Your task to perform on an android device: turn off smart reply in the gmail app Image 0: 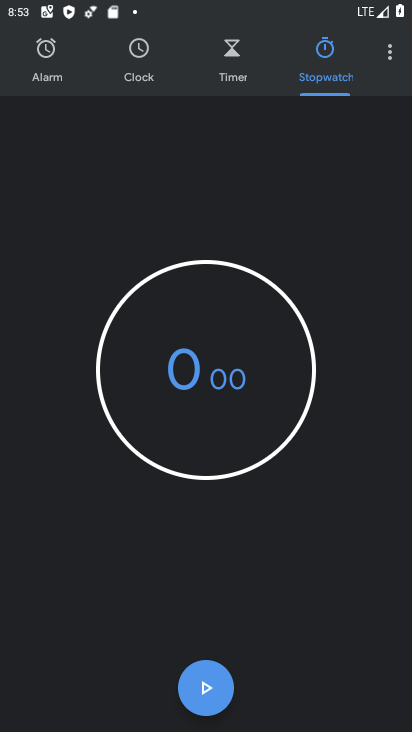
Step 0: press home button
Your task to perform on an android device: turn off smart reply in the gmail app Image 1: 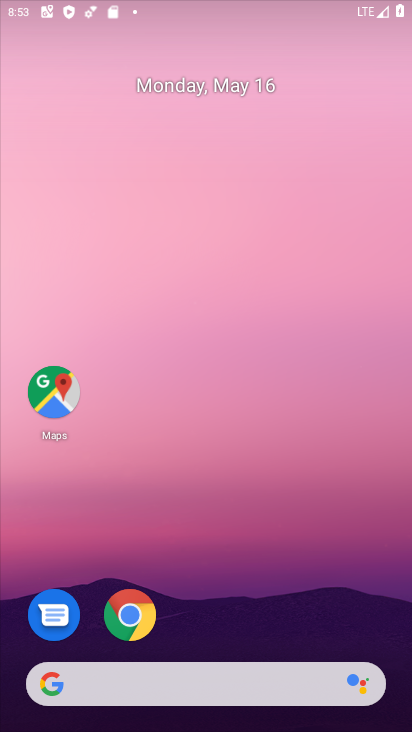
Step 1: drag from (184, 693) to (181, 270)
Your task to perform on an android device: turn off smart reply in the gmail app Image 2: 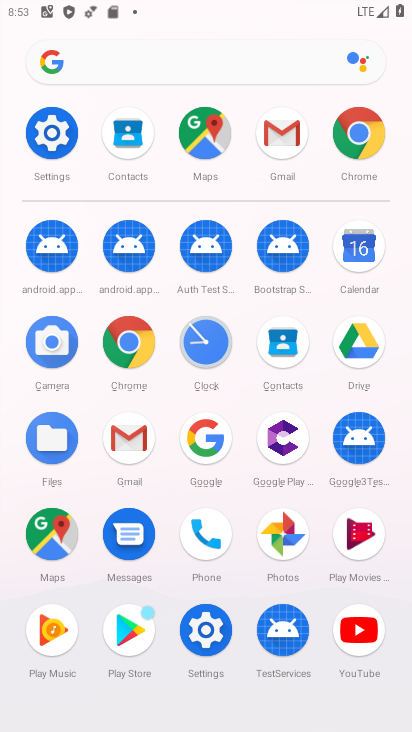
Step 2: click (133, 458)
Your task to perform on an android device: turn off smart reply in the gmail app Image 3: 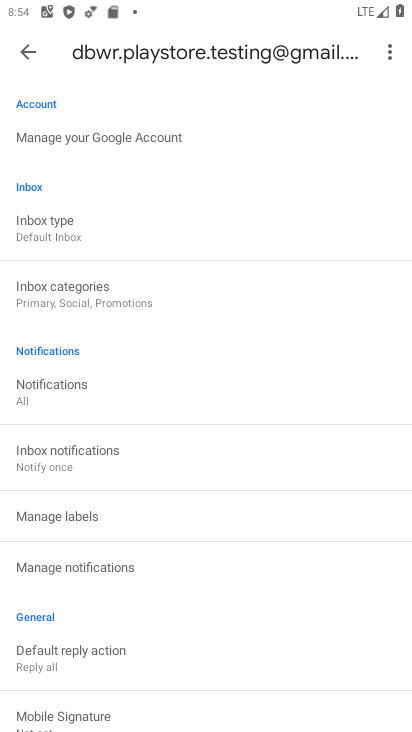
Step 3: drag from (101, 505) to (133, 149)
Your task to perform on an android device: turn off smart reply in the gmail app Image 4: 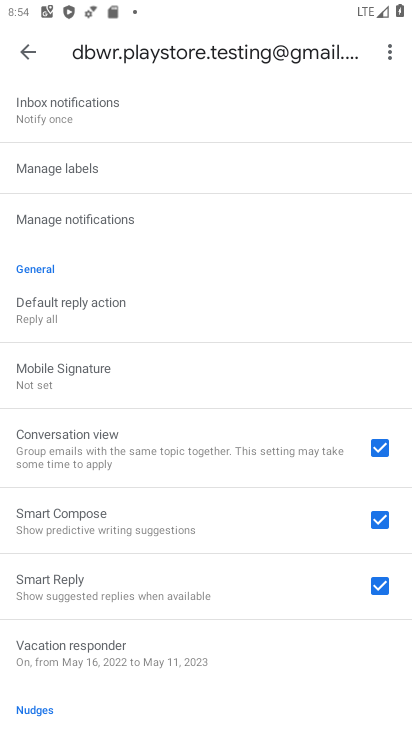
Step 4: drag from (162, 558) to (170, 340)
Your task to perform on an android device: turn off smart reply in the gmail app Image 5: 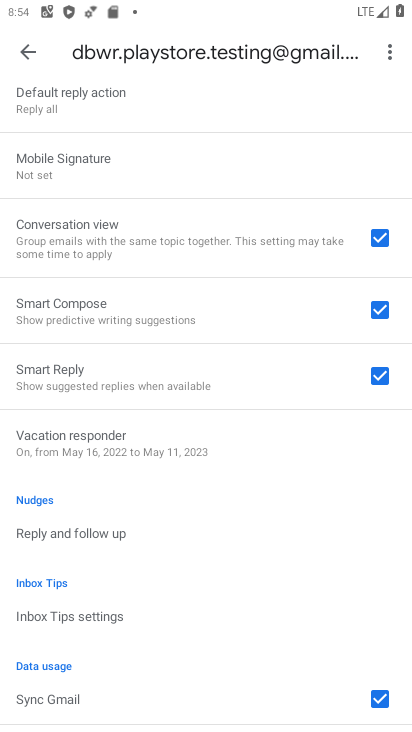
Step 5: click (385, 378)
Your task to perform on an android device: turn off smart reply in the gmail app Image 6: 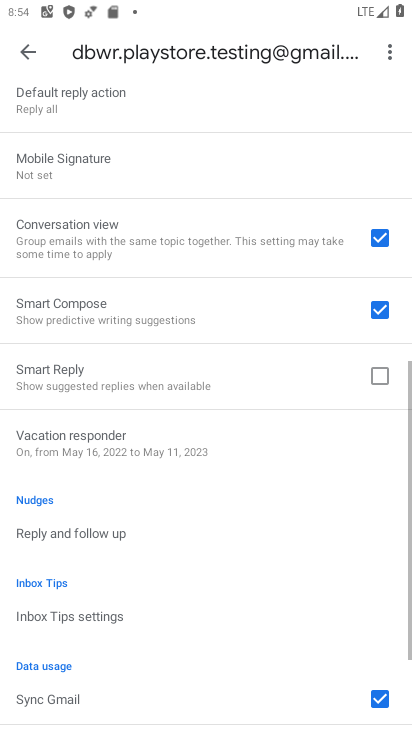
Step 6: task complete